Your task to perform on an android device: move a message to another label in the gmail app Image 0: 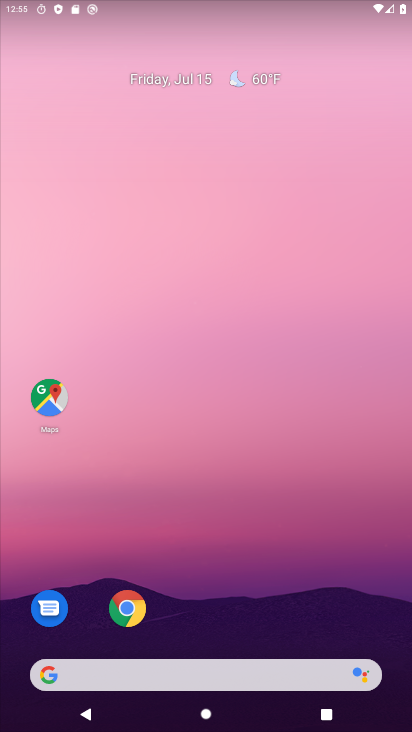
Step 0: drag from (304, 591) to (262, 8)
Your task to perform on an android device: move a message to another label in the gmail app Image 1: 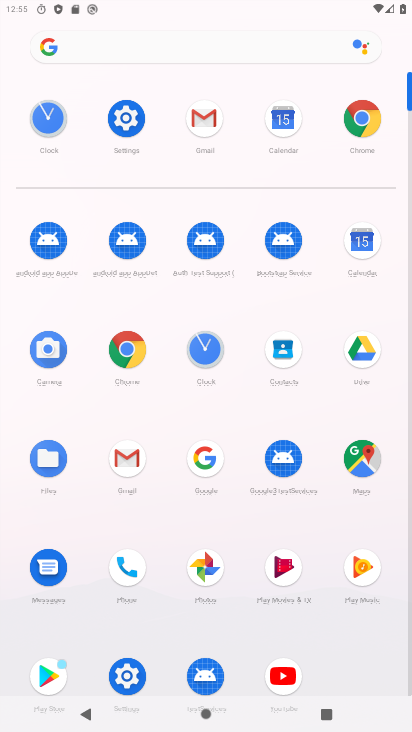
Step 1: click (108, 452)
Your task to perform on an android device: move a message to another label in the gmail app Image 2: 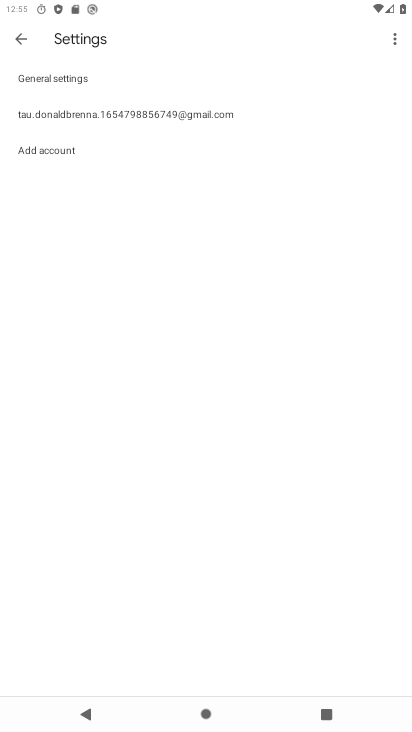
Step 2: click (18, 33)
Your task to perform on an android device: move a message to another label in the gmail app Image 3: 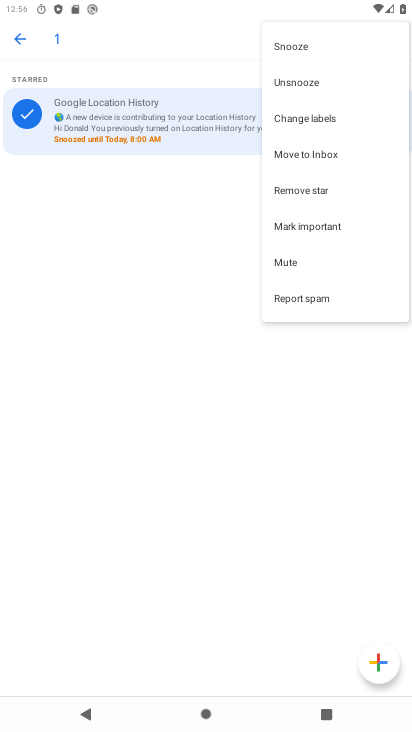
Step 3: task complete